Your task to perform on an android device: check android version Image 0: 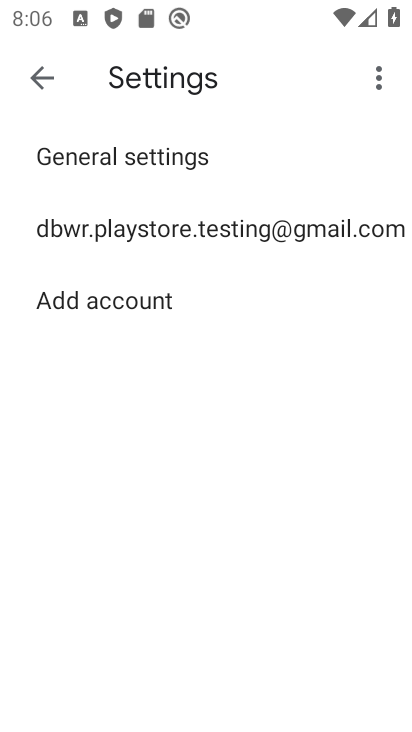
Step 0: press home button
Your task to perform on an android device: check android version Image 1: 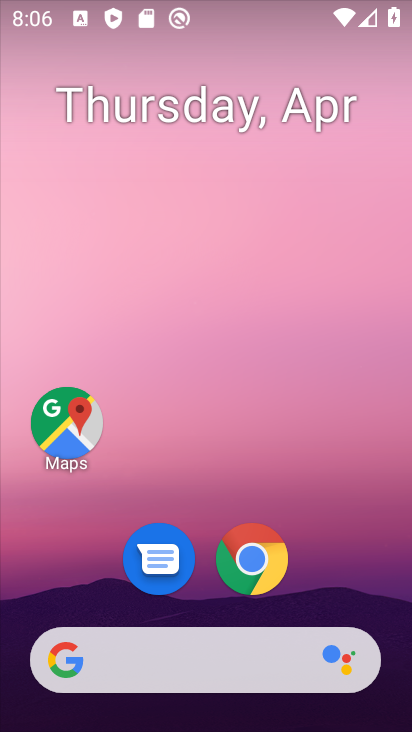
Step 1: drag from (235, 721) to (268, 29)
Your task to perform on an android device: check android version Image 2: 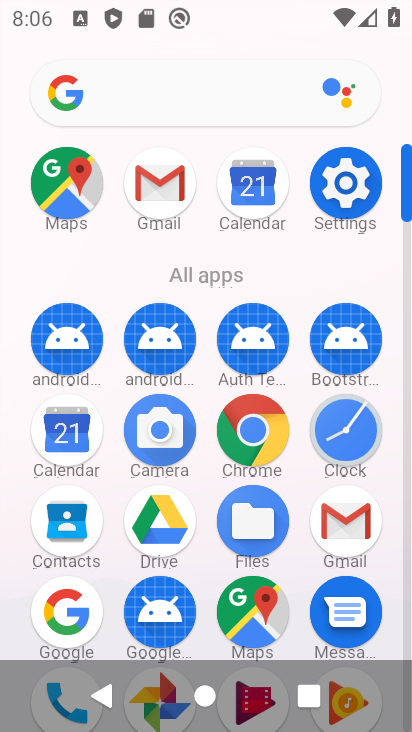
Step 2: click (352, 176)
Your task to perform on an android device: check android version Image 3: 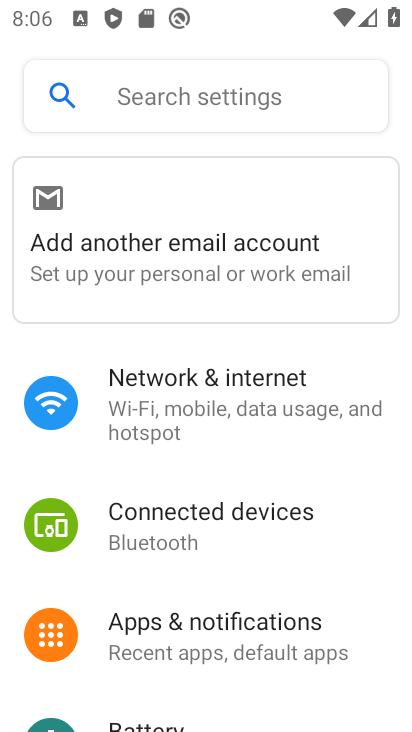
Step 3: drag from (278, 643) to (234, 7)
Your task to perform on an android device: check android version Image 4: 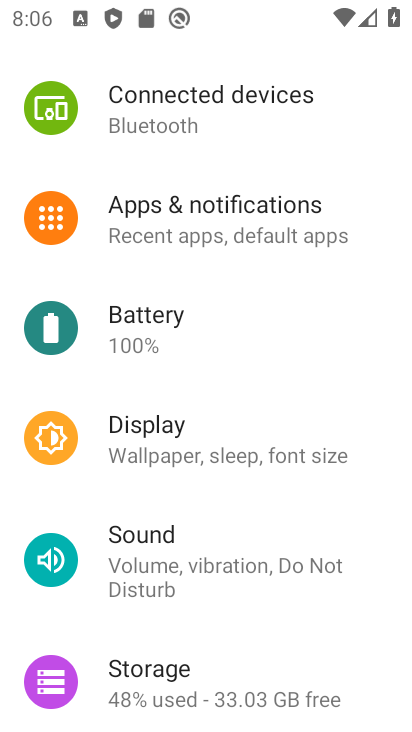
Step 4: drag from (186, 501) to (202, 28)
Your task to perform on an android device: check android version Image 5: 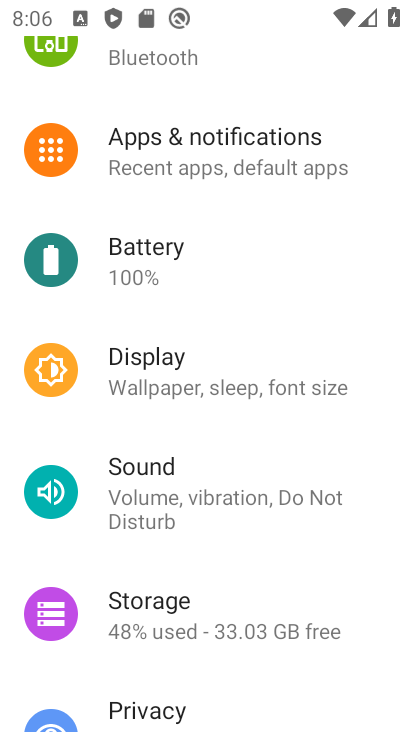
Step 5: drag from (282, 565) to (217, 96)
Your task to perform on an android device: check android version Image 6: 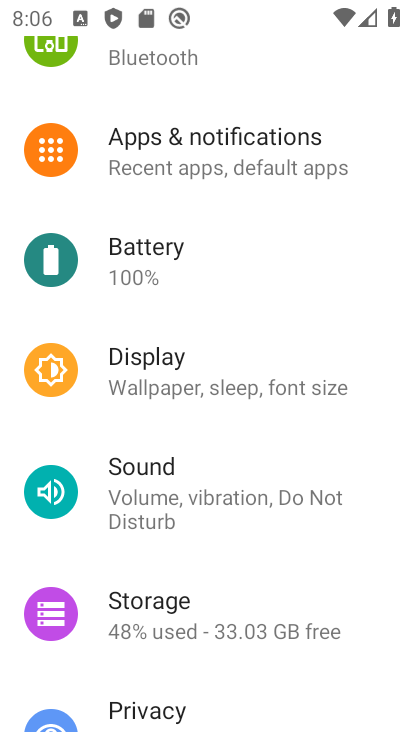
Step 6: drag from (233, 480) to (152, 0)
Your task to perform on an android device: check android version Image 7: 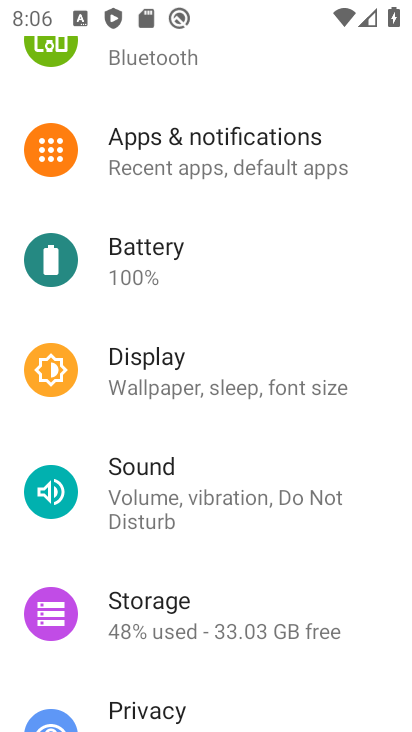
Step 7: drag from (222, 690) to (147, 89)
Your task to perform on an android device: check android version Image 8: 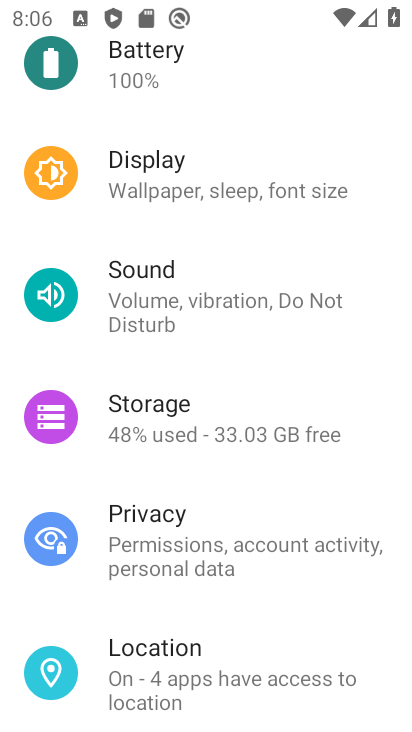
Step 8: drag from (261, 669) to (259, 3)
Your task to perform on an android device: check android version Image 9: 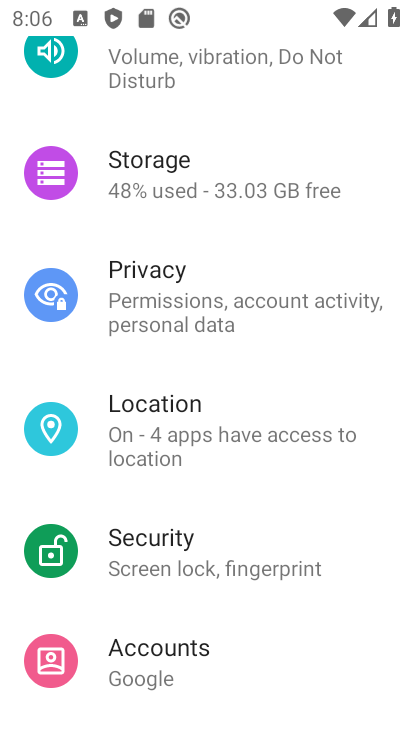
Step 9: drag from (257, 317) to (188, 2)
Your task to perform on an android device: check android version Image 10: 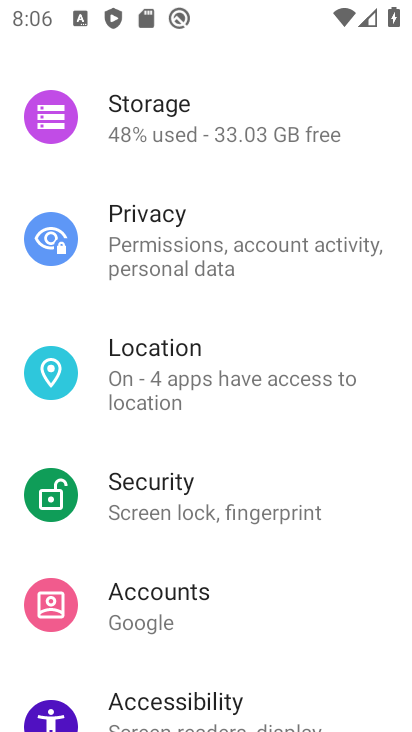
Step 10: drag from (302, 652) to (347, 34)
Your task to perform on an android device: check android version Image 11: 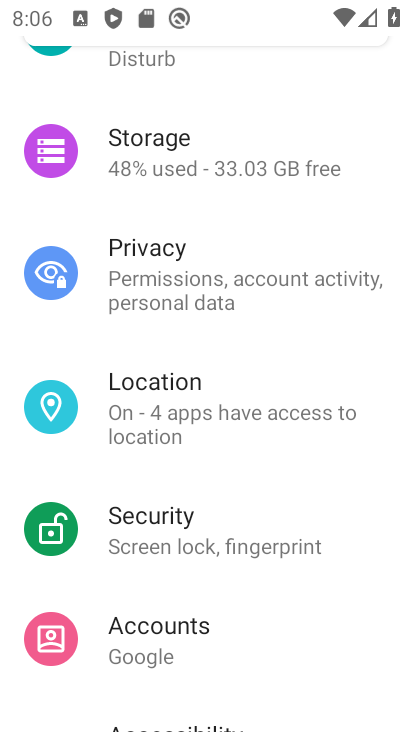
Step 11: drag from (338, 699) to (264, 23)
Your task to perform on an android device: check android version Image 12: 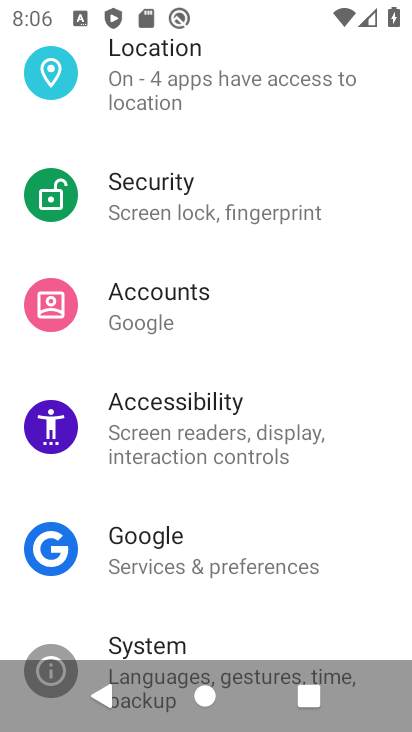
Step 12: drag from (279, 581) to (300, 18)
Your task to perform on an android device: check android version Image 13: 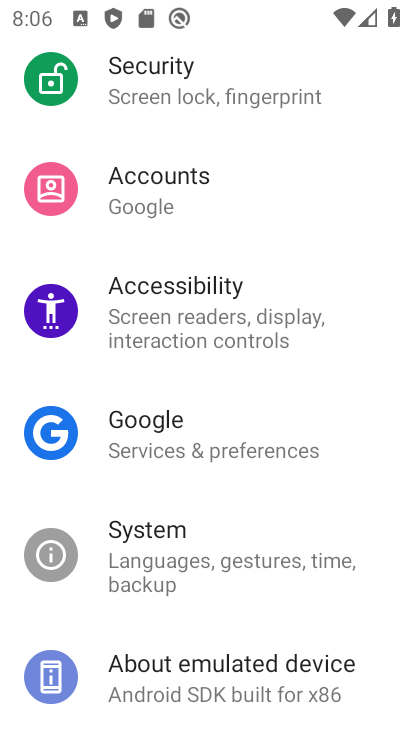
Step 13: drag from (273, 491) to (306, 12)
Your task to perform on an android device: check android version Image 14: 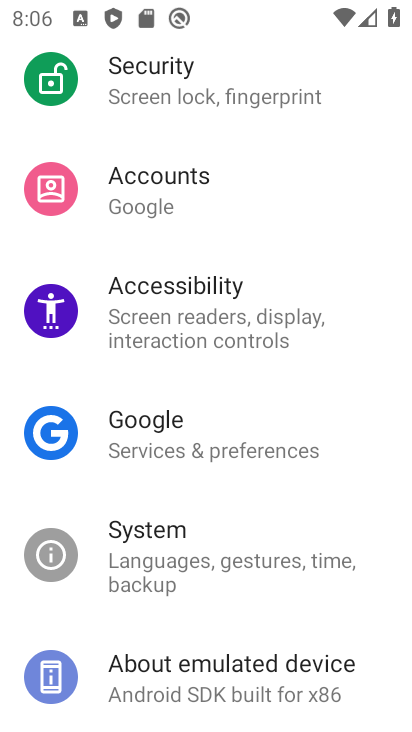
Step 14: click (173, 690)
Your task to perform on an android device: check android version Image 15: 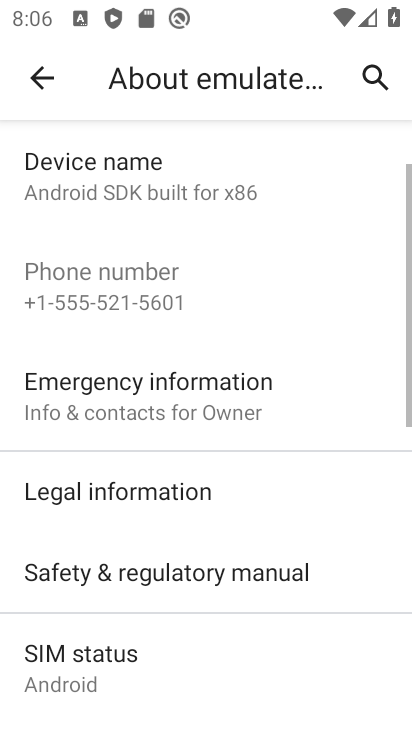
Step 15: task complete